Your task to perform on an android device: empty trash in the gmail app Image 0: 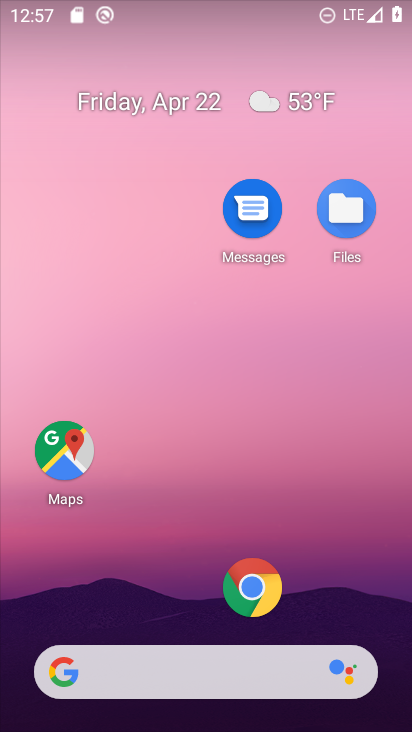
Step 0: drag from (172, 610) to (178, 151)
Your task to perform on an android device: empty trash in the gmail app Image 1: 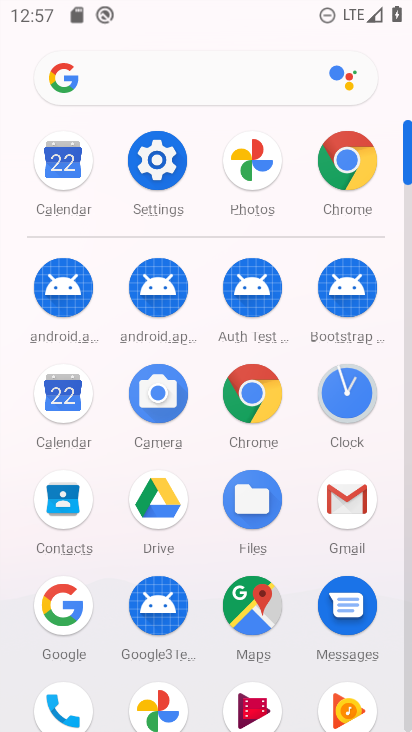
Step 1: click (348, 507)
Your task to perform on an android device: empty trash in the gmail app Image 2: 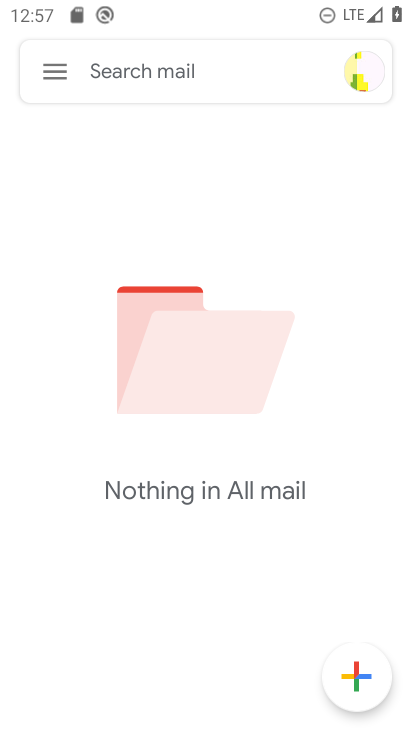
Step 2: click (60, 69)
Your task to perform on an android device: empty trash in the gmail app Image 3: 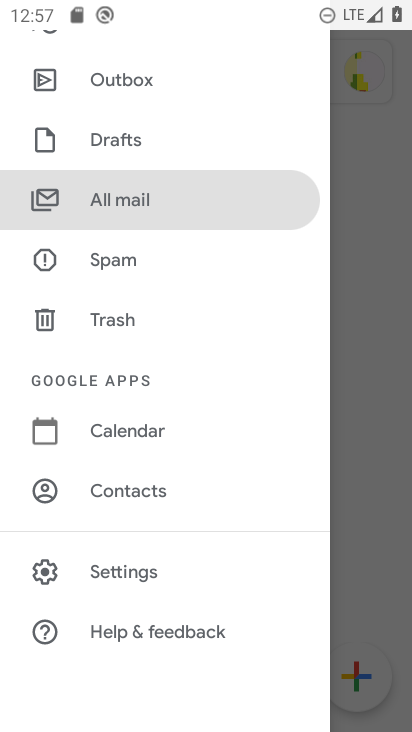
Step 3: click (163, 318)
Your task to perform on an android device: empty trash in the gmail app Image 4: 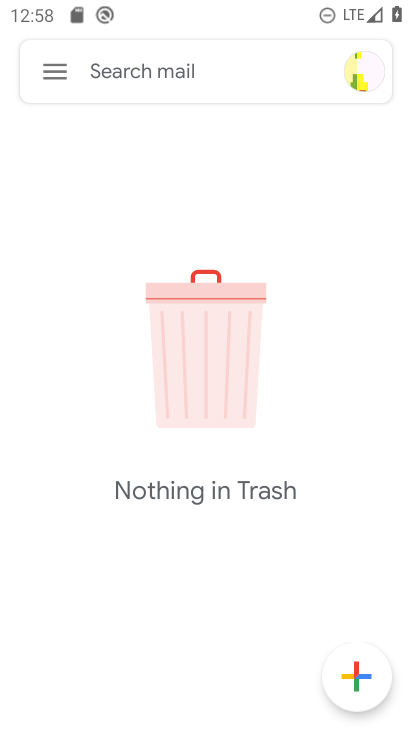
Step 4: task complete